Your task to perform on an android device: What is the recent news? Image 0: 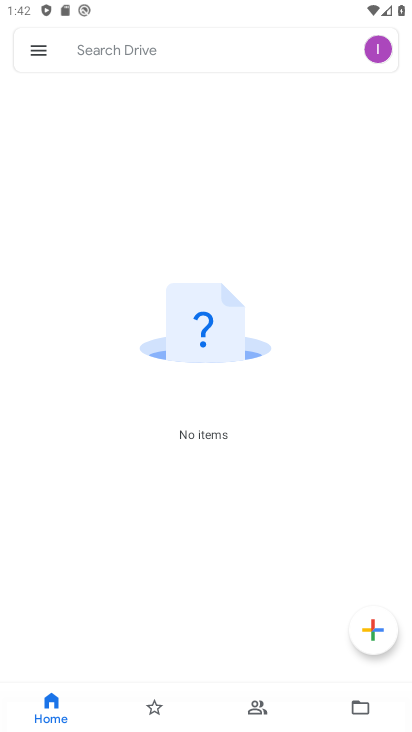
Step 0: press home button
Your task to perform on an android device: What is the recent news? Image 1: 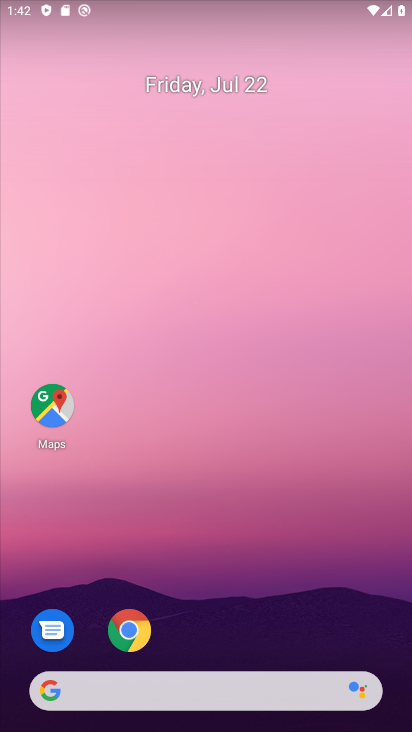
Step 1: drag from (179, 624) to (238, 74)
Your task to perform on an android device: What is the recent news? Image 2: 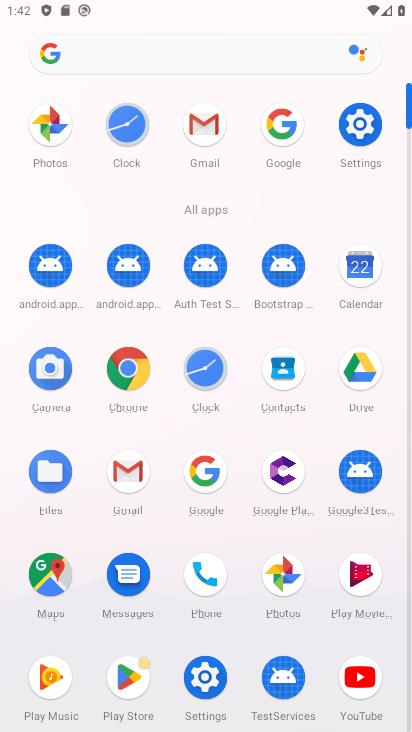
Step 2: click (208, 466)
Your task to perform on an android device: What is the recent news? Image 3: 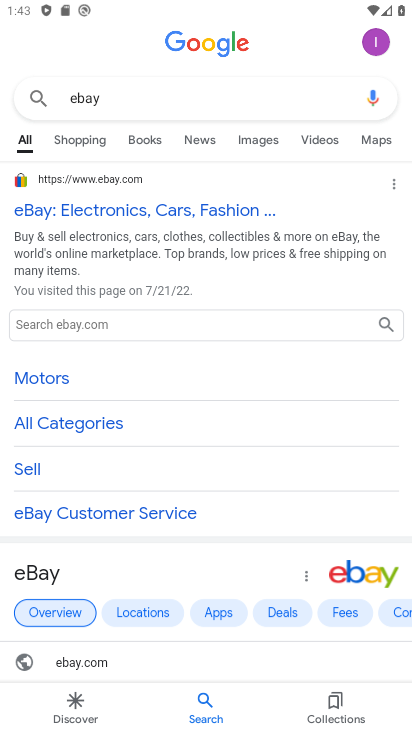
Step 3: click (202, 114)
Your task to perform on an android device: What is the recent news? Image 4: 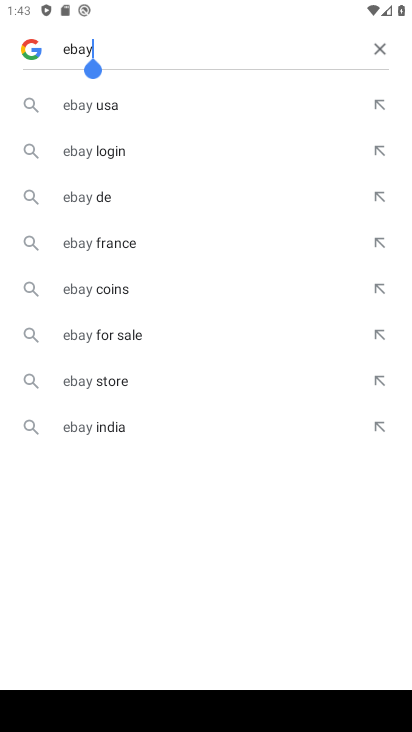
Step 4: click (383, 53)
Your task to perform on an android device: What is the recent news? Image 5: 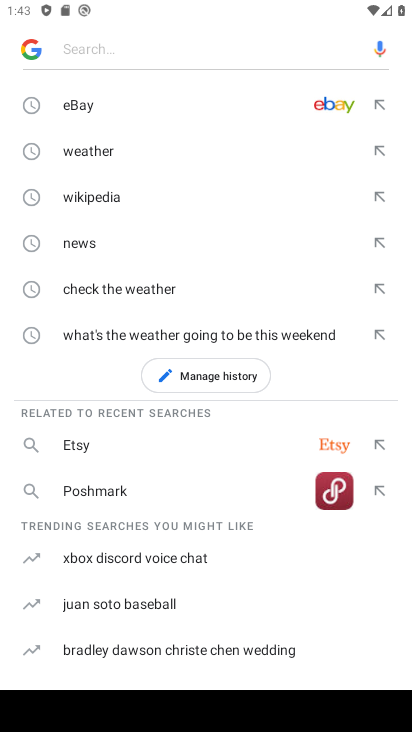
Step 5: type "recent news"
Your task to perform on an android device: What is the recent news? Image 6: 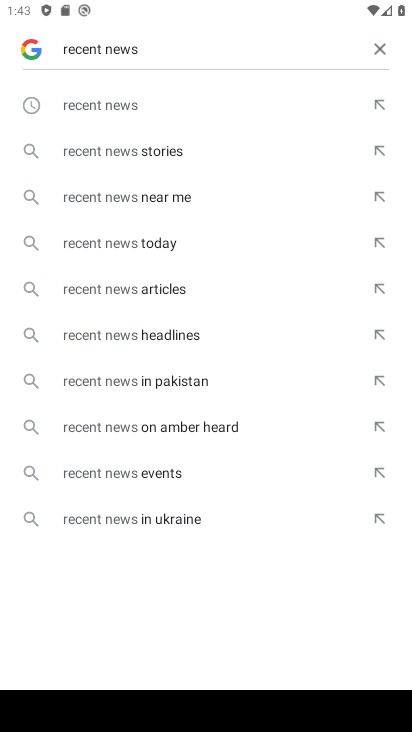
Step 6: click (146, 109)
Your task to perform on an android device: What is the recent news? Image 7: 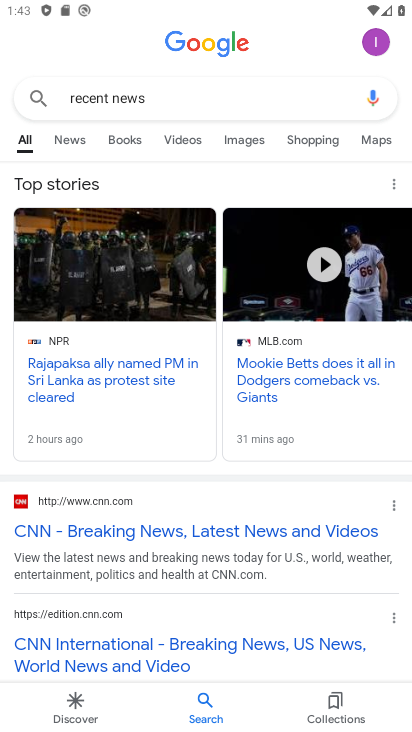
Step 7: task complete